Your task to perform on an android device: Go to Yahoo.com Image 0: 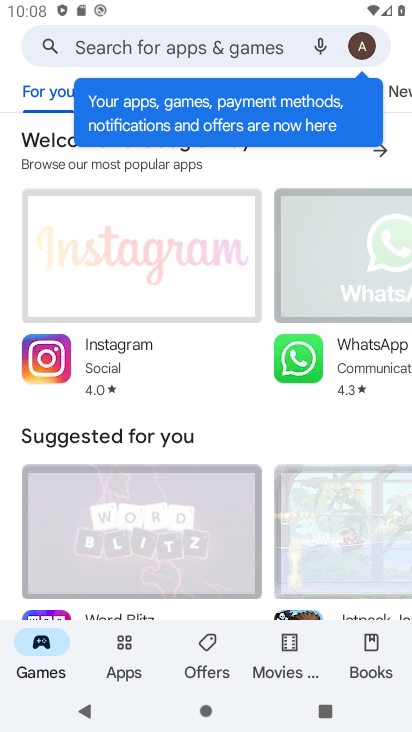
Step 0: press home button
Your task to perform on an android device: Go to Yahoo.com Image 1: 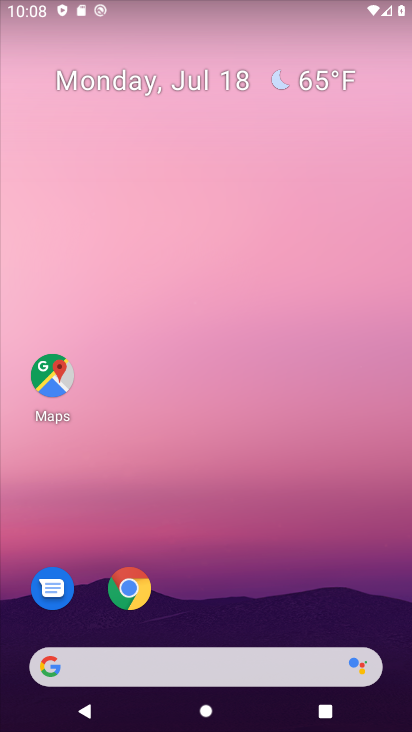
Step 1: click (50, 663)
Your task to perform on an android device: Go to Yahoo.com Image 2: 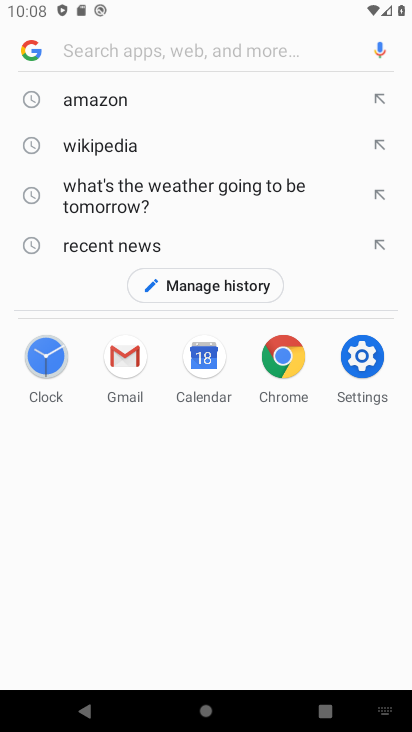
Step 2: type "Yahoo.com"
Your task to perform on an android device: Go to Yahoo.com Image 3: 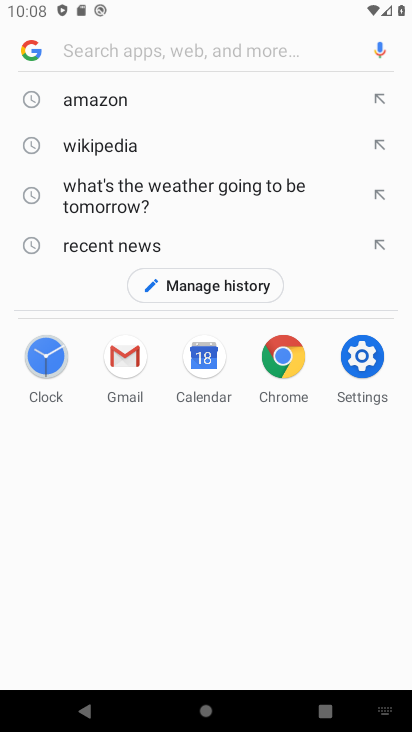
Step 3: click (85, 47)
Your task to perform on an android device: Go to Yahoo.com Image 4: 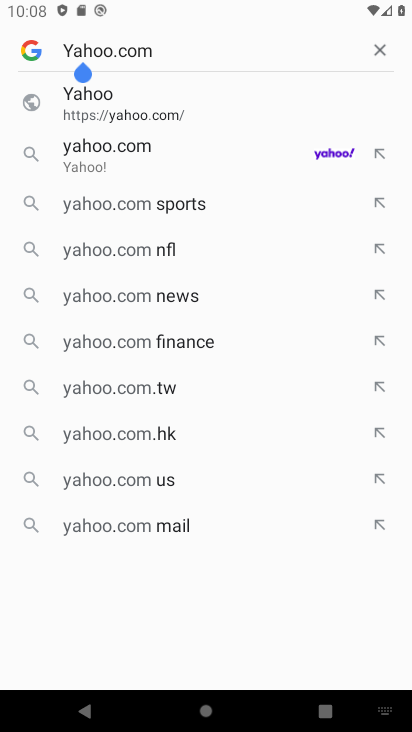
Step 4: press enter
Your task to perform on an android device: Go to Yahoo.com Image 5: 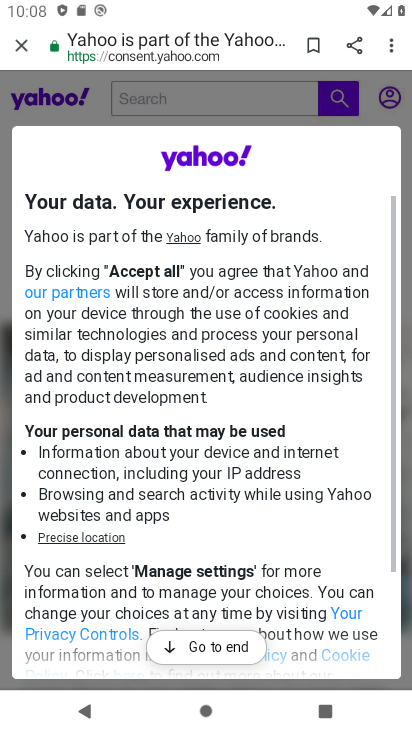
Step 5: drag from (298, 565) to (271, 236)
Your task to perform on an android device: Go to Yahoo.com Image 6: 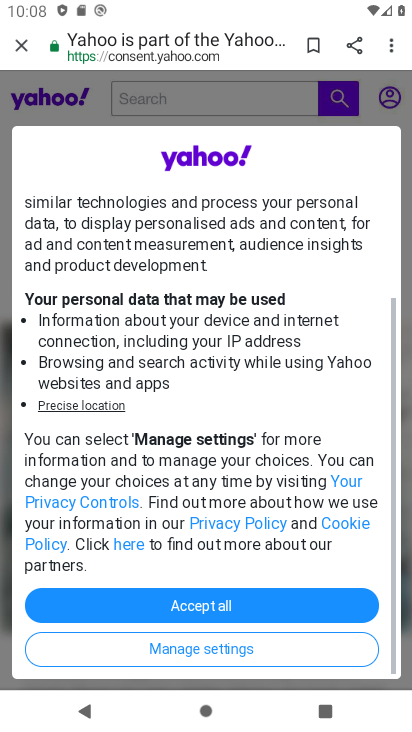
Step 6: click (268, 608)
Your task to perform on an android device: Go to Yahoo.com Image 7: 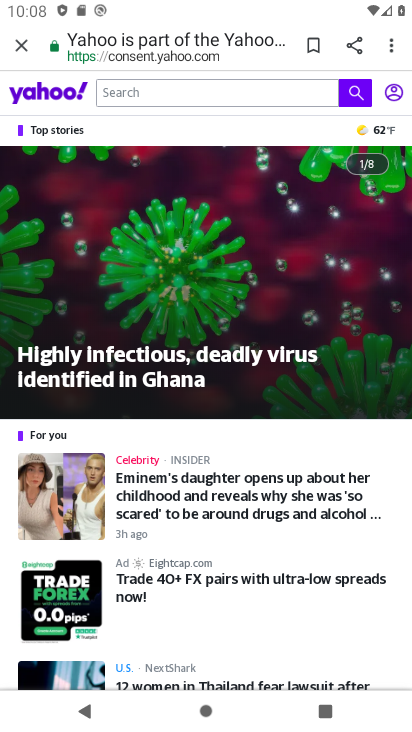
Step 7: task complete